Your task to perform on an android device: Toggle the flashlight Image 0: 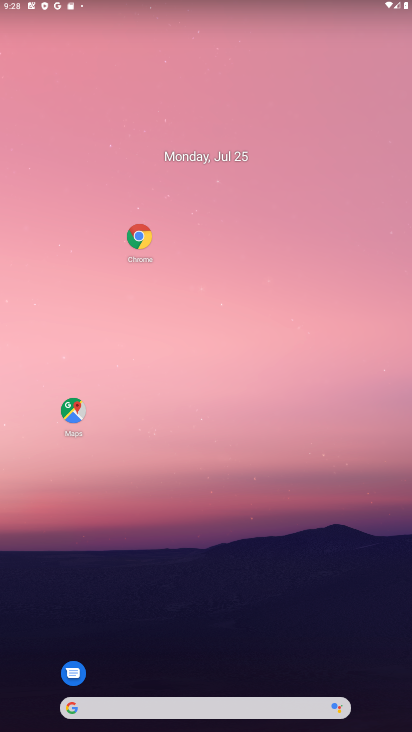
Step 0: task complete